Your task to perform on an android device: choose inbox layout in the gmail app Image 0: 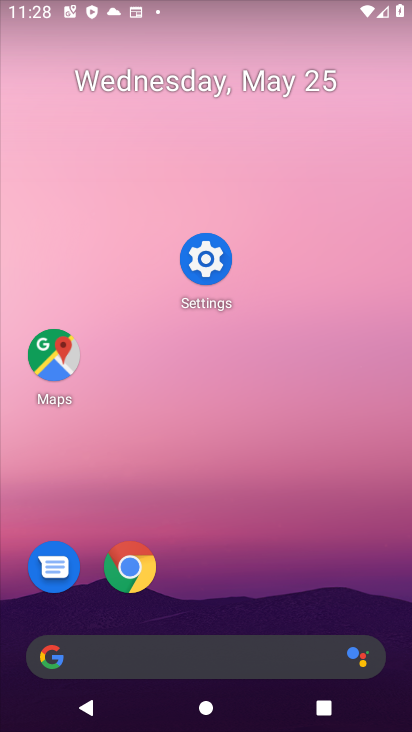
Step 0: drag from (324, 562) to (319, 16)
Your task to perform on an android device: choose inbox layout in the gmail app Image 1: 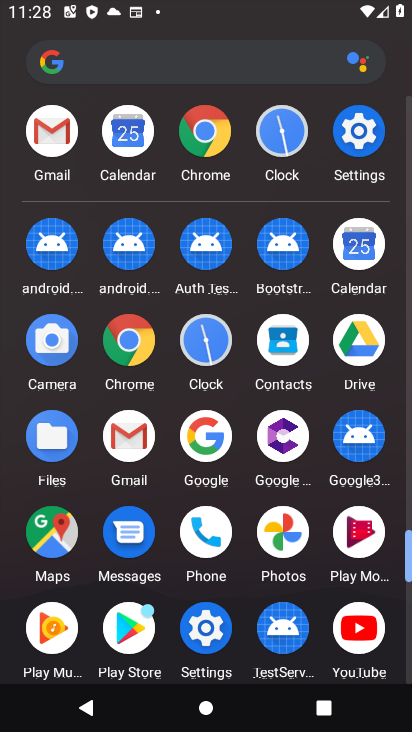
Step 1: click (364, 140)
Your task to perform on an android device: choose inbox layout in the gmail app Image 2: 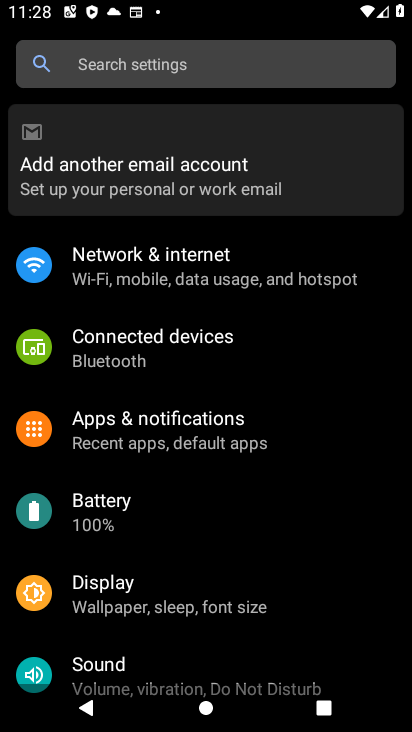
Step 2: press home button
Your task to perform on an android device: choose inbox layout in the gmail app Image 3: 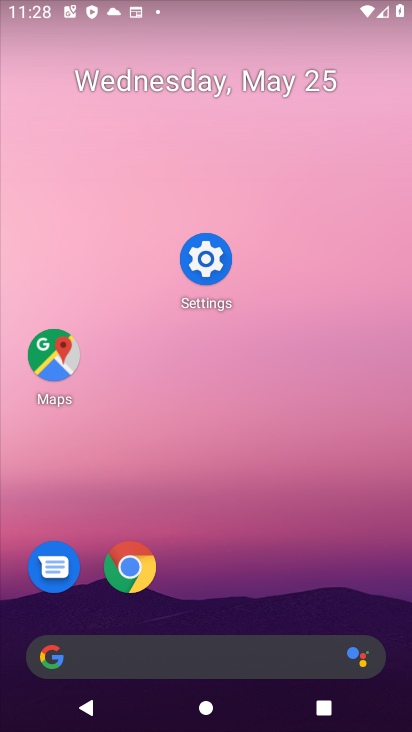
Step 3: drag from (262, 551) to (347, 9)
Your task to perform on an android device: choose inbox layout in the gmail app Image 4: 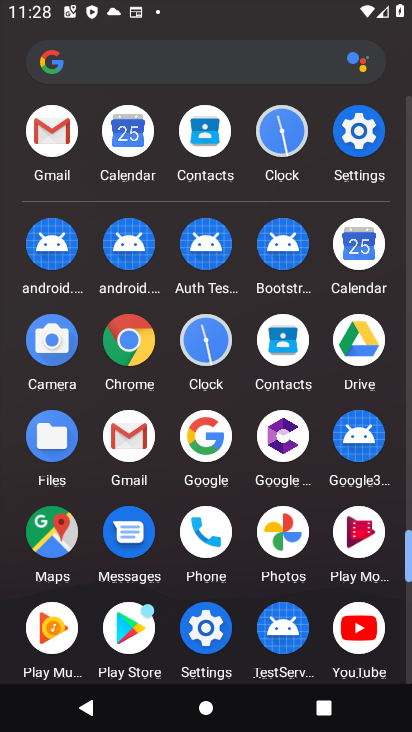
Step 4: click (139, 454)
Your task to perform on an android device: choose inbox layout in the gmail app Image 5: 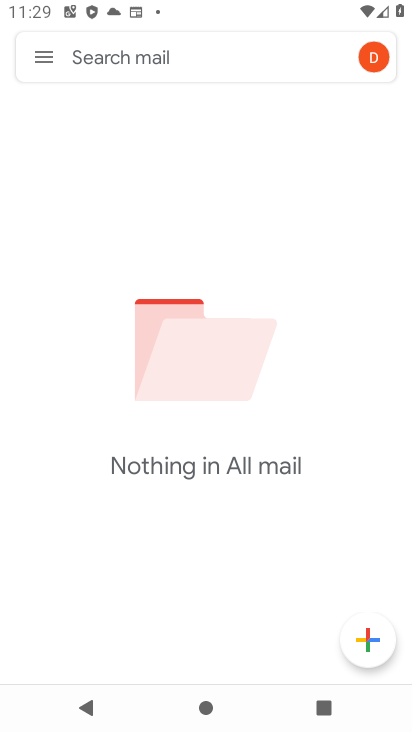
Step 5: click (48, 74)
Your task to perform on an android device: choose inbox layout in the gmail app Image 6: 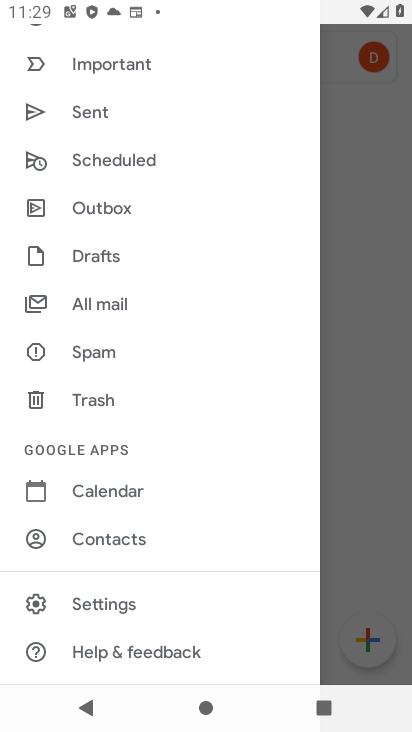
Step 6: click (107, 77)
Your task to perform on an android device: choose inbox layout in the gmail app Image 7: 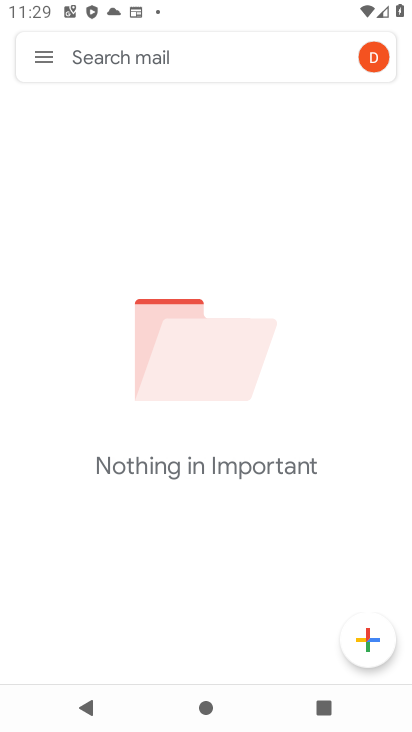
Step 7: task complete